Your task to perform on an android device: find photos in the google photos app Image 0: 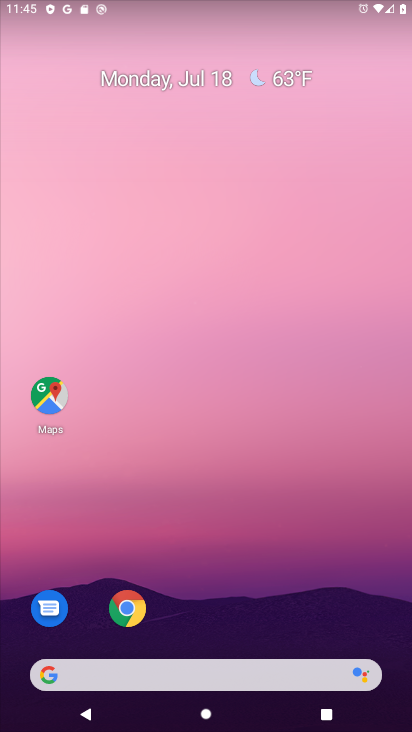
Step 0: drag from (287, 599) to (275, 22)
Your task to perform on an android device: find photos in the google photos app Image 1: 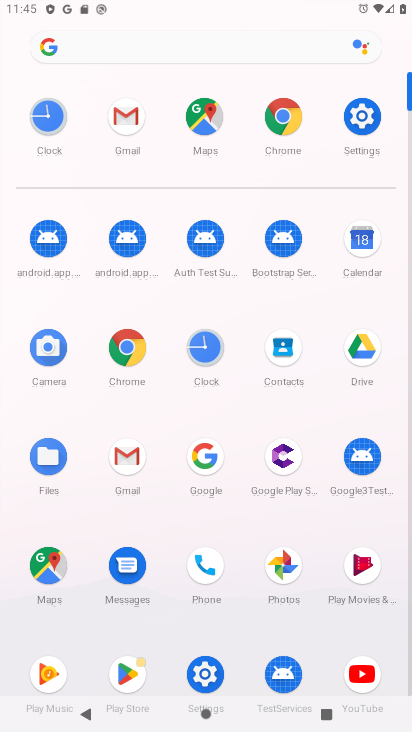
Step 1: click (278, 558)
Your task to perform on an android device: find photos in the google photos app Image 2: 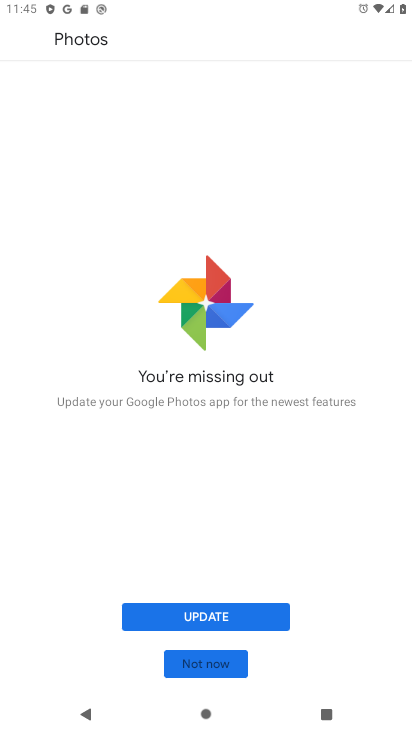
Step 2: click (215, 617)
Your task to perform on an android device: find photos in the google photos app Image 3: 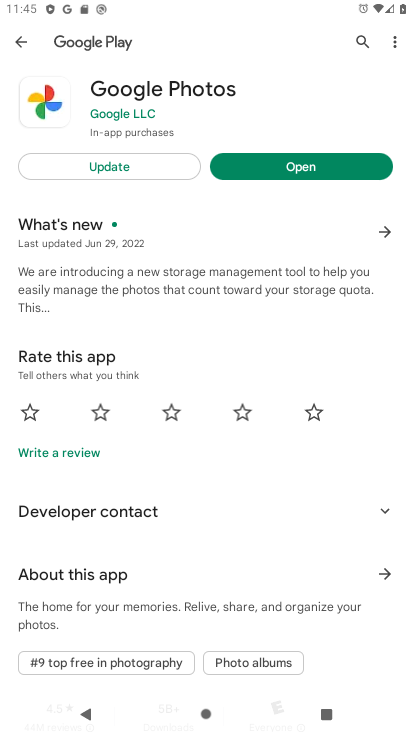
Step 3: click (140, 166)
Your task to perform on an android device: find photos in the google photos app Image 4: 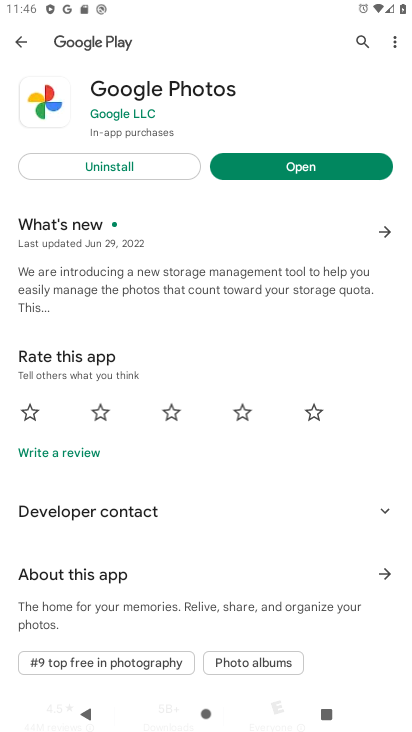
Step 4: click (299, 167)
Your task to perform on an android device: find photos in the google photos app Image 5: 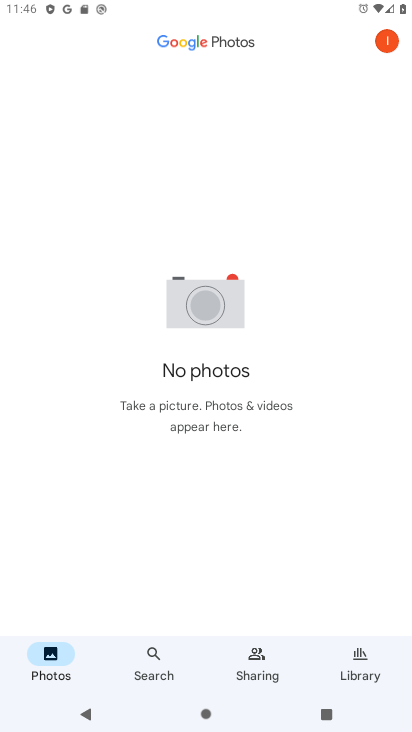
Step 5: task complete